Your task to perform on an android device: refresh tabs in the chrome app Image 0: 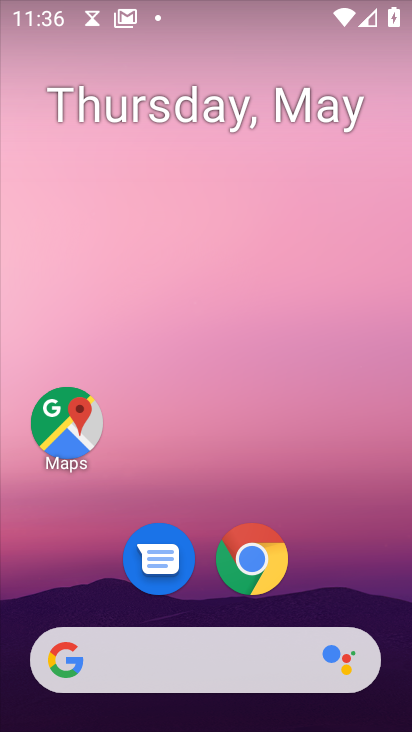
Step 0: click (249, 568)
Your task to perform on an android device: refresh tabs in the chrome app Image 1: 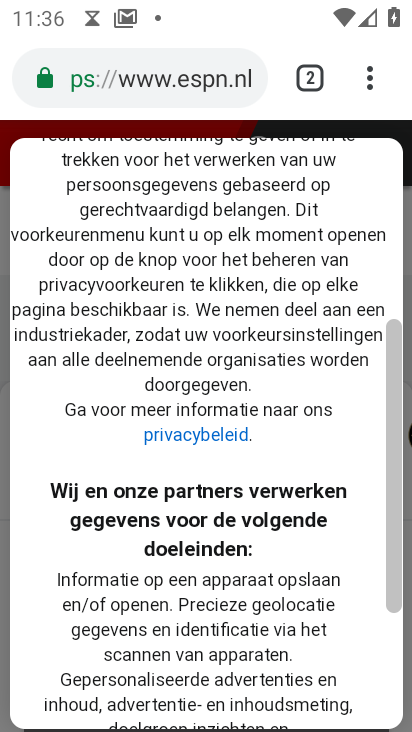
Step 1: click (369, 79)
Your task to perform on an android device: refresh tabs in the chrome app Image 2: 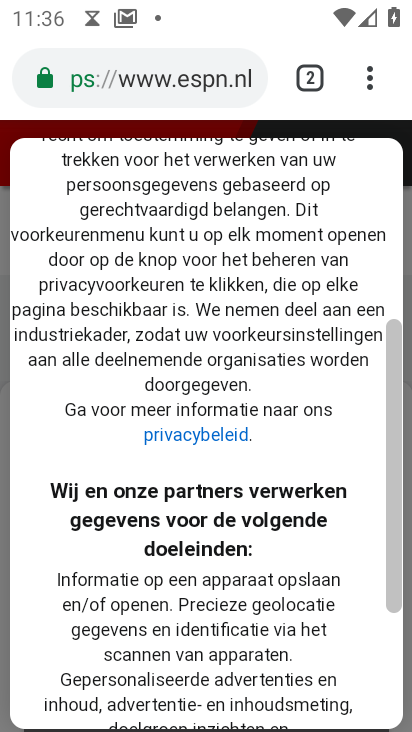
Step 2: task complete